Your task to perform on an android device: Open Google Image 0: 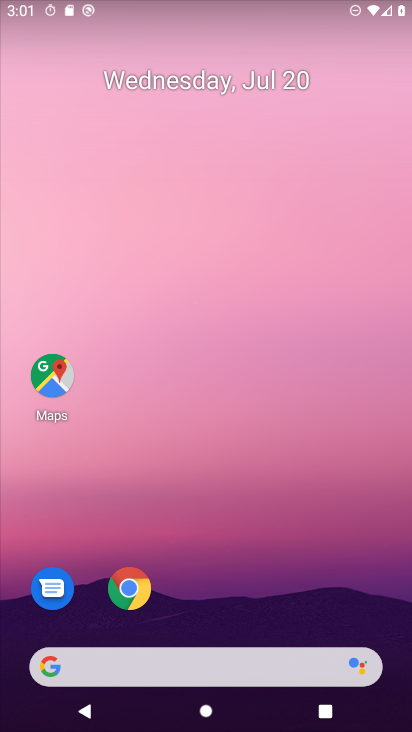
Step 0: drag from (241, 629) to (189, 2)
Your task to perform on an android device: Open Google Image 1: 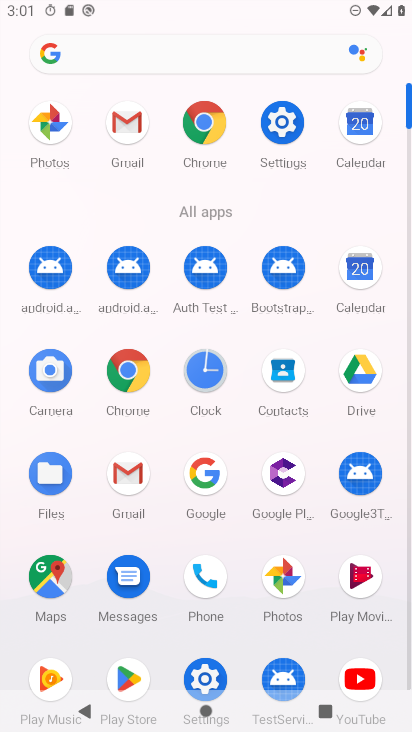
Step 1: click (199, 470)
Your task to perform on an android device: Open Google Image 2: 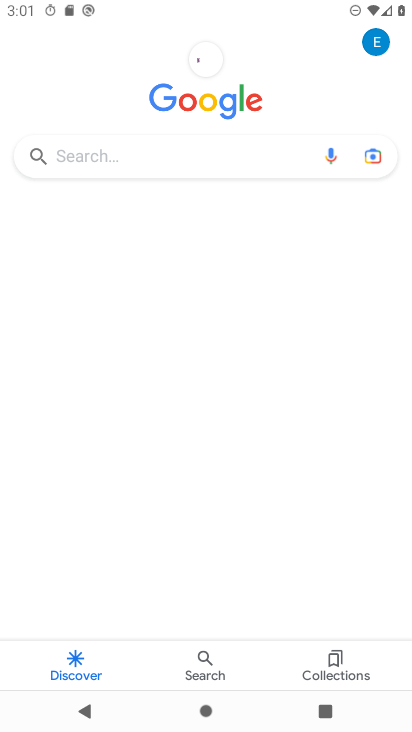
Step 2: click (43, 165)
Your task to perform on an android device: Open Google Image 3: 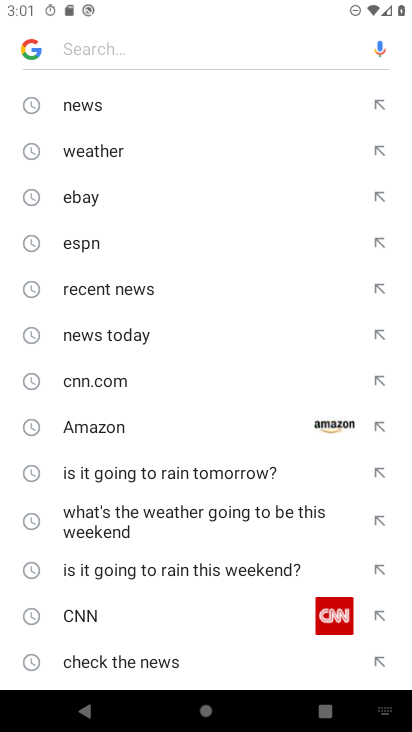
Step 3: task complete